Your task to perform on an android device: Go to accessibility settings Image 0: 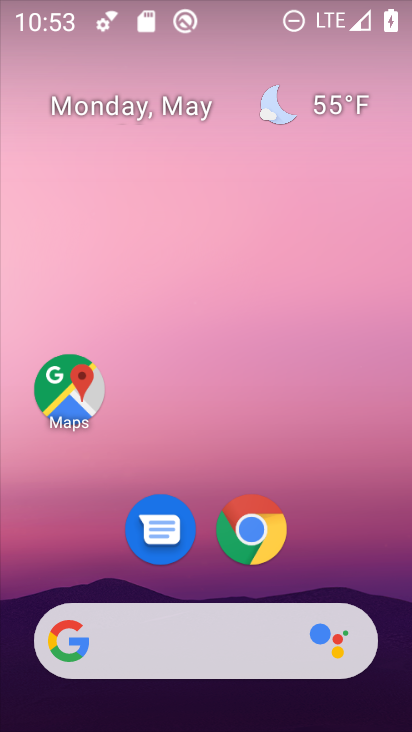
Step 0: drag from (170, 630) to (110, 115)
Your task to perform on an android device: Go to accessibility settings Image 1: 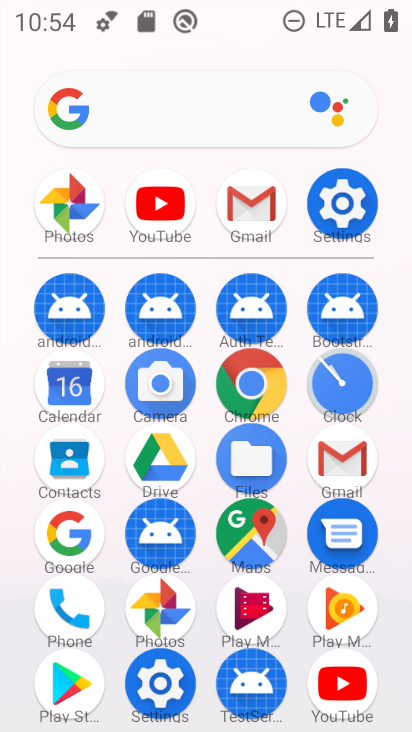
Step 1: click (331, 221)
Your task to perform on an android device: Go to accessibility settings Image 2: 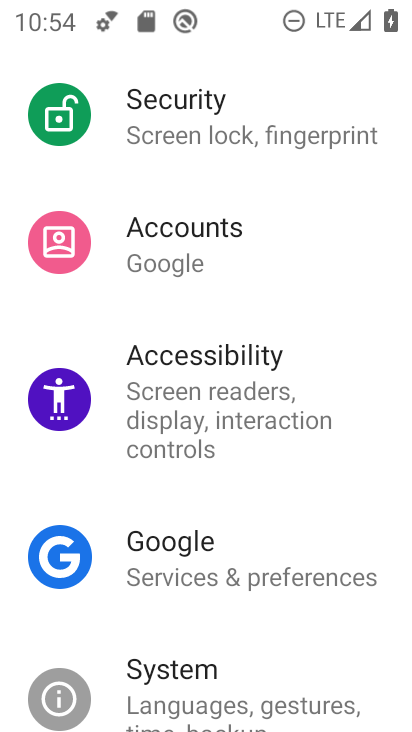
Step 2: click (183, 414)
Your task to perform on an android device: Go to accessibility settings Image 3: 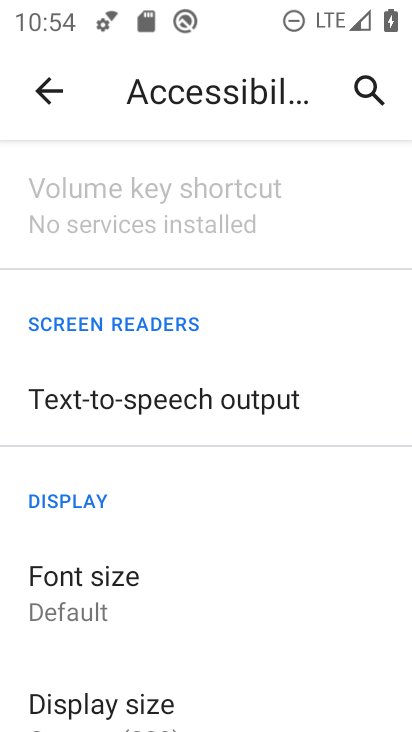
Step 3: task complete